Your task to perform on an android device: Open wifi settings Image 0: 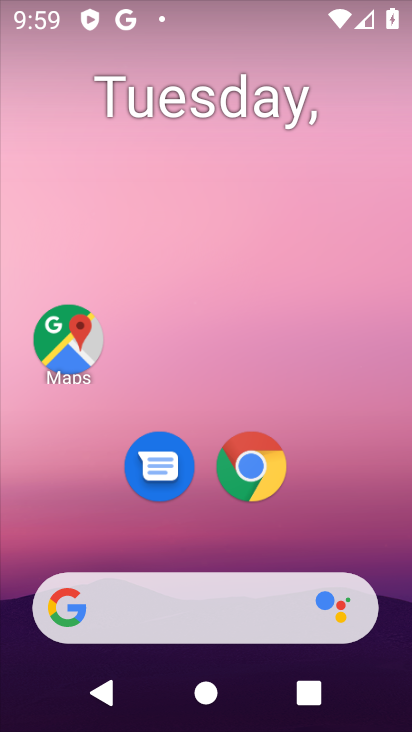
Step 0: drag from (343, 501) to (216, 73)
Your task to perform on an android device: Open wifi settings Image 1: 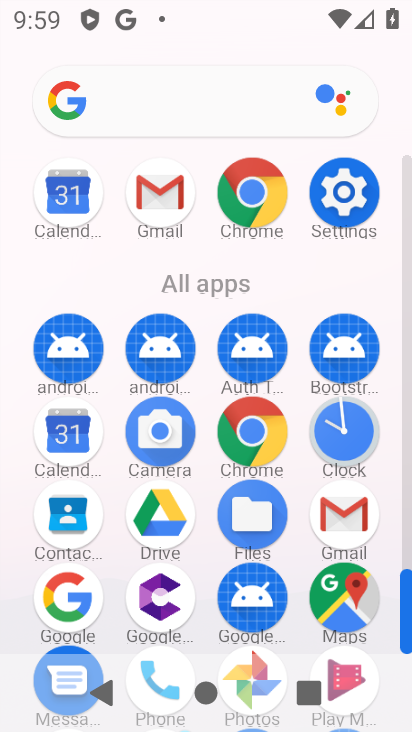
Step 1: click (325, 189)
Your task to perform on an android device: Open wifi settings Image 2: 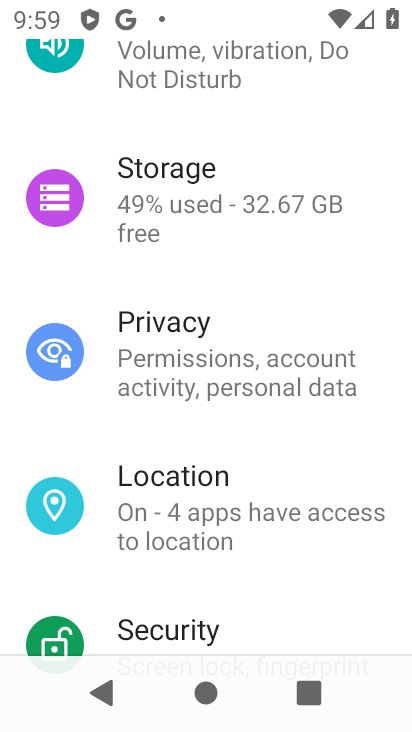
Step 2: drag from (212, 146) to (265, 603)
Your task to perform on an android device: Open wifi settings Image 3: 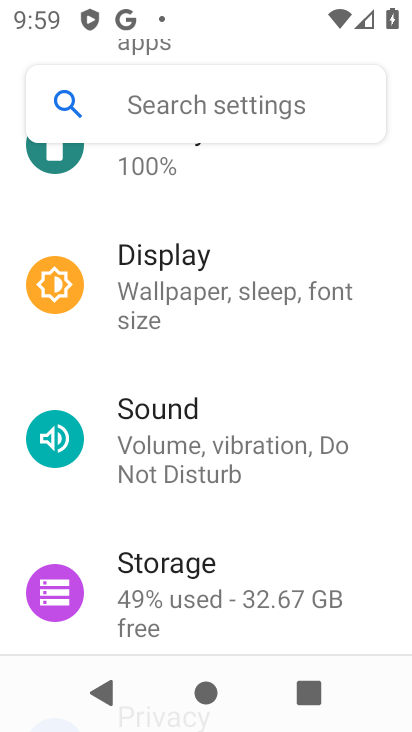
Step 3: drag from (227, 251) to (289, 647)
Your task to perform on an android device: Open wifi settings Image 4: 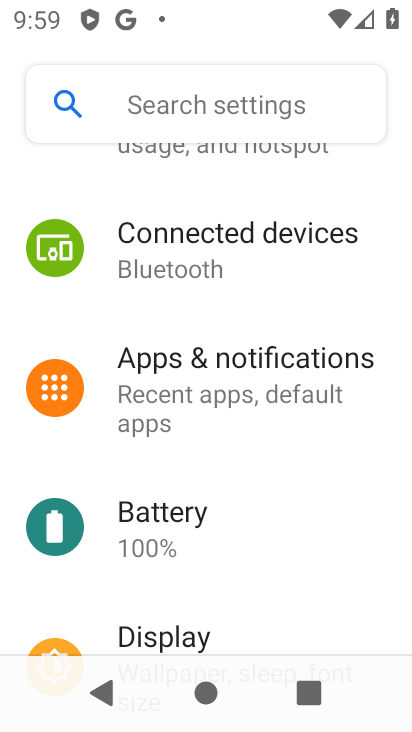
Step 4: drag from (222, 271) to (279, 638)
Your task to perform on an android device: Open wifi settings Image 5: 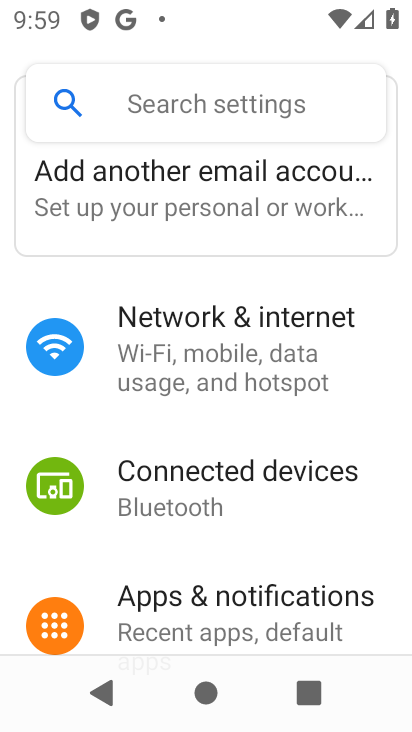
Step 5: click (199, 362)
Your task to perform on an android device: Open wifi settings Image 6: 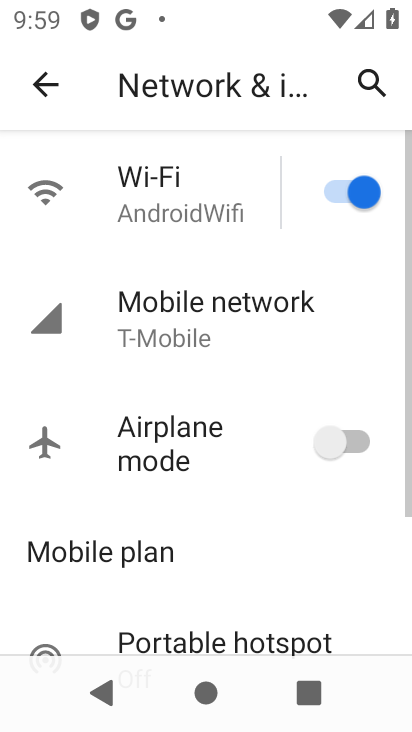
Step 6: click (190, 203)
Your task to perform on an android device: Open wifi settings Image 7: 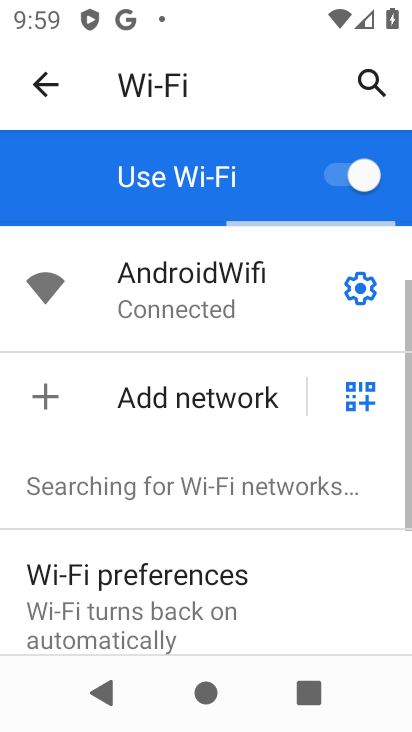
Step 7: click (358, 288)
Your task to perform on an android device: Open wifi settings Image 8: 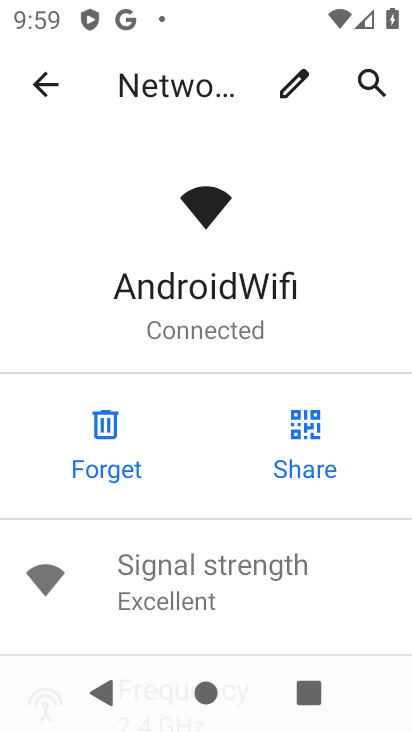
Step 8: task complete